Your task to perform on an android device: open sync settings in chrome Image 0: 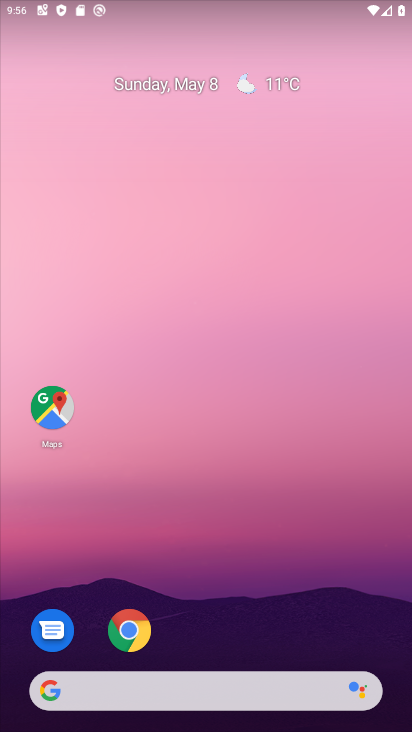
Step 0: drag from (375, 650) to (252, 162)
Your task to perform on an android device: open sync settings in chrome Image 1: 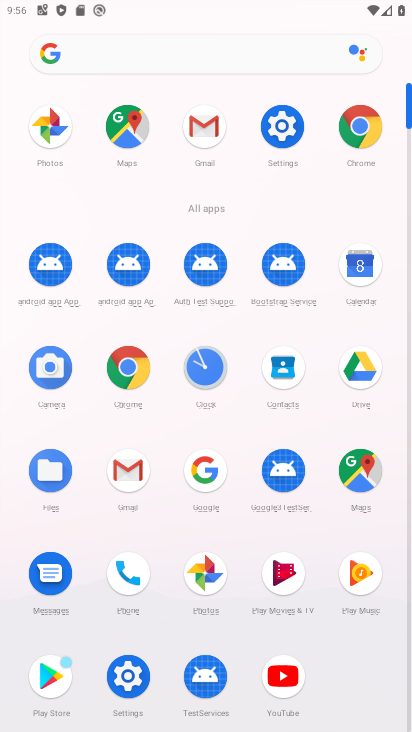
Step 1: click (358, 137)
Your task to perform on an android device: open sync settings in chrome Image 2: 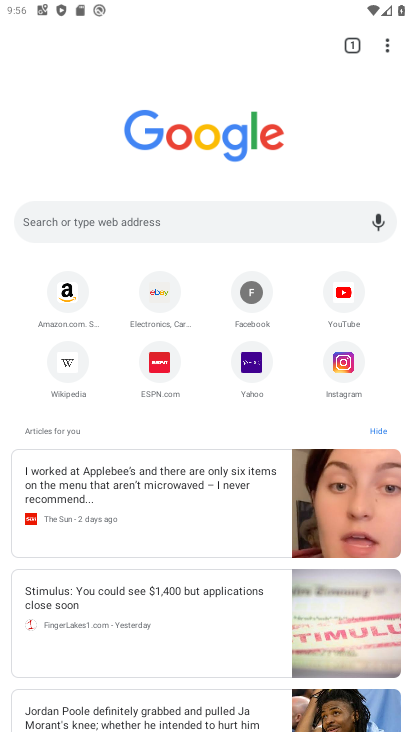
Step 2: click (383, 45)
Your task to perform on an android device: open sync settings in chrome Image 3: 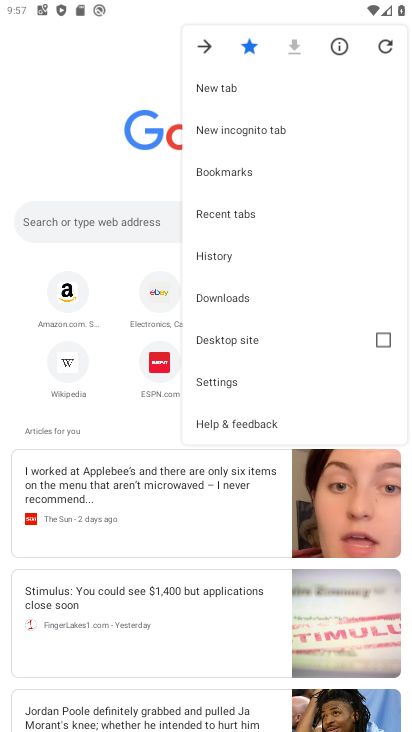
Step 3: click (250, 375)
Your task to perform on an android device: open sync settings in chrome Image 4: 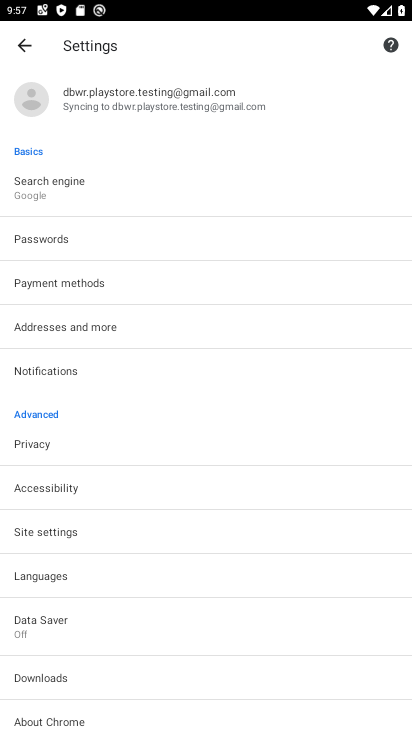
Step 4: click (128, 535)
Your task to perform on an android device: open sync settings in chrome Image 5: 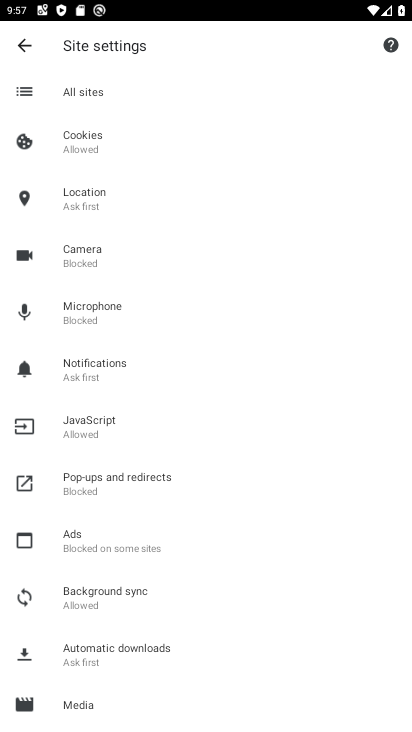
Step 5: drag from (160, 632) to (194, 386)
Your task to perform on an android device: open sync settings in chrome Image 6: 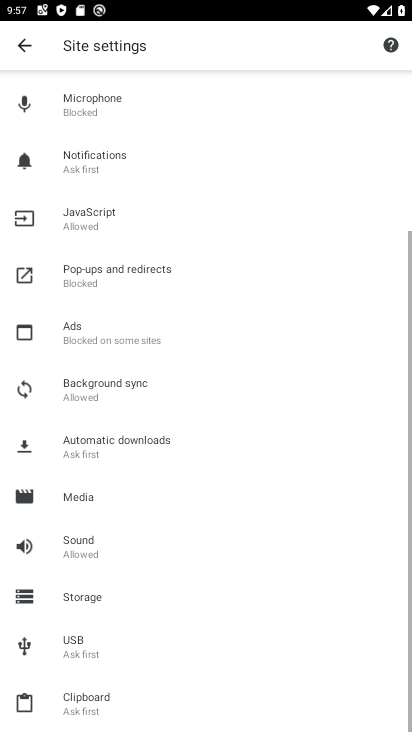
Step 6: click (135, 389)
Your task to perform on an android device: open sync settings in chrome Image 7: 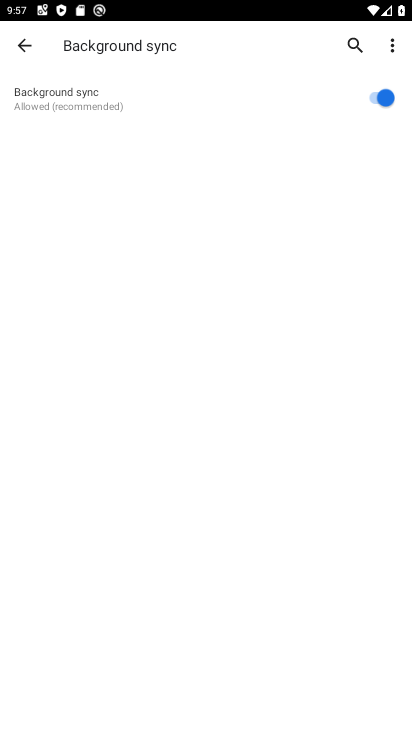
Step 7: task complete